Your task to perform on an android device: set the timer Image 0: 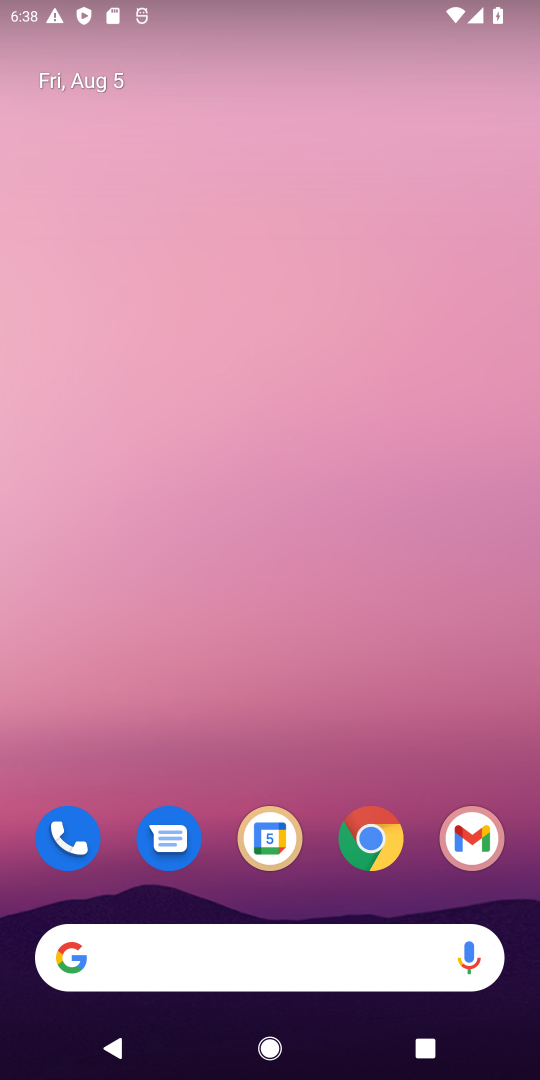
Step 0: press home button
Your task to perform on an android device: set the timer Image 1: 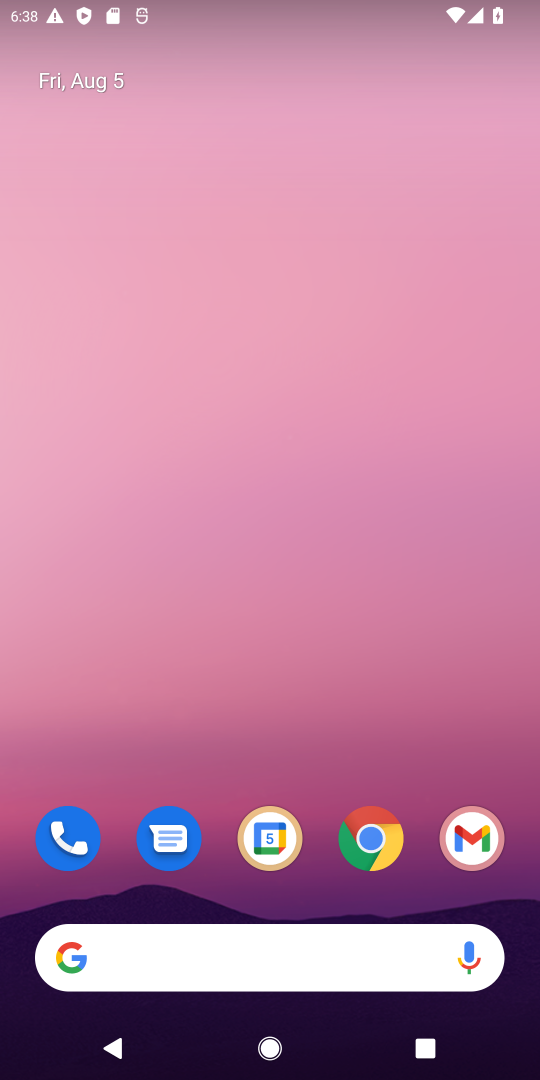
Step 1: drag from (387, 725) to (375, 206)
Your task to perform on an android device: set the timer Image 2: 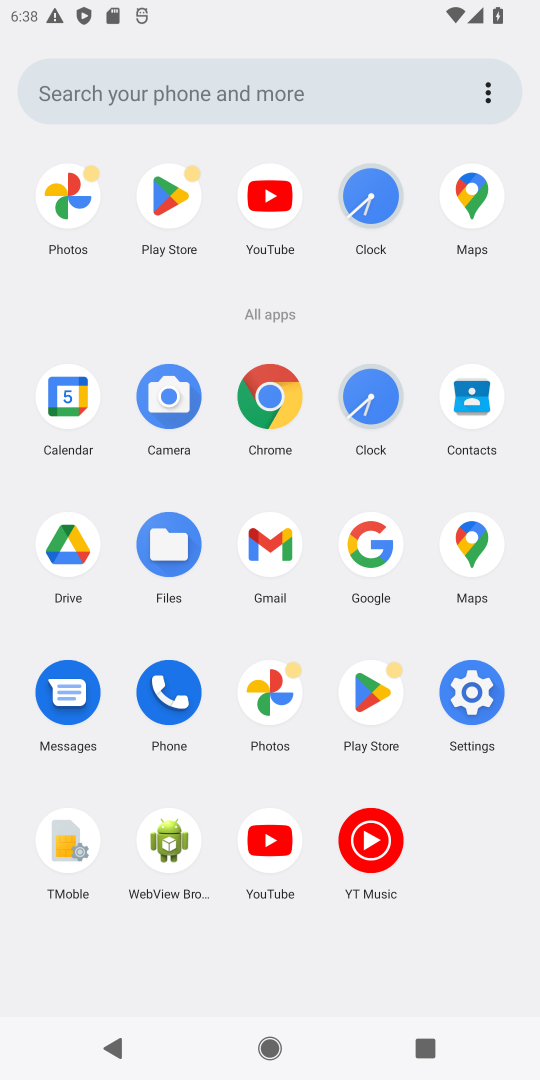
Step 2: click (369, 396)
Your task to perform on an android device: set the timer Image 3: 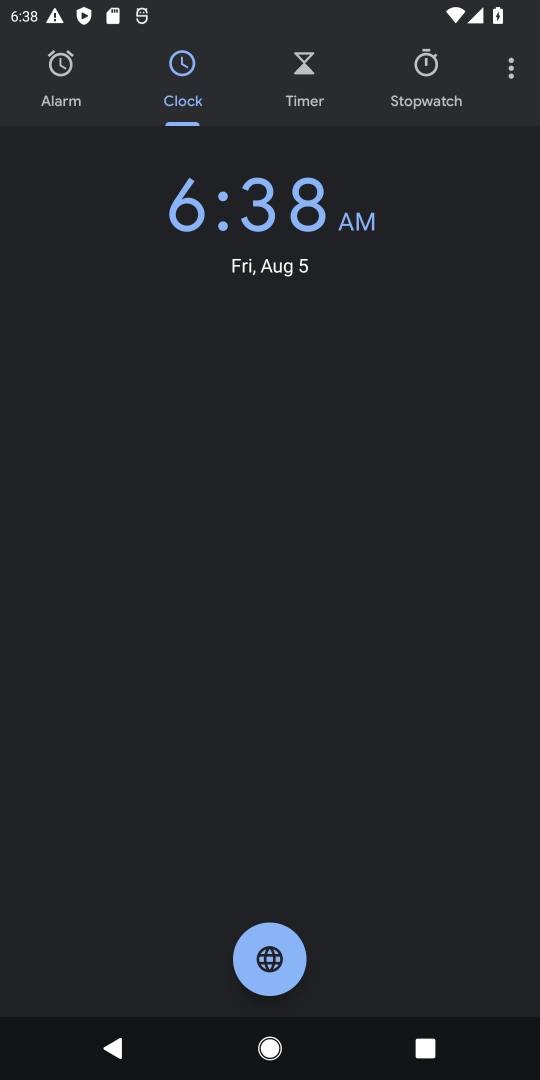
Step 3: click (293, 58)
Your task to perform on an android device: set the timer Image 4: 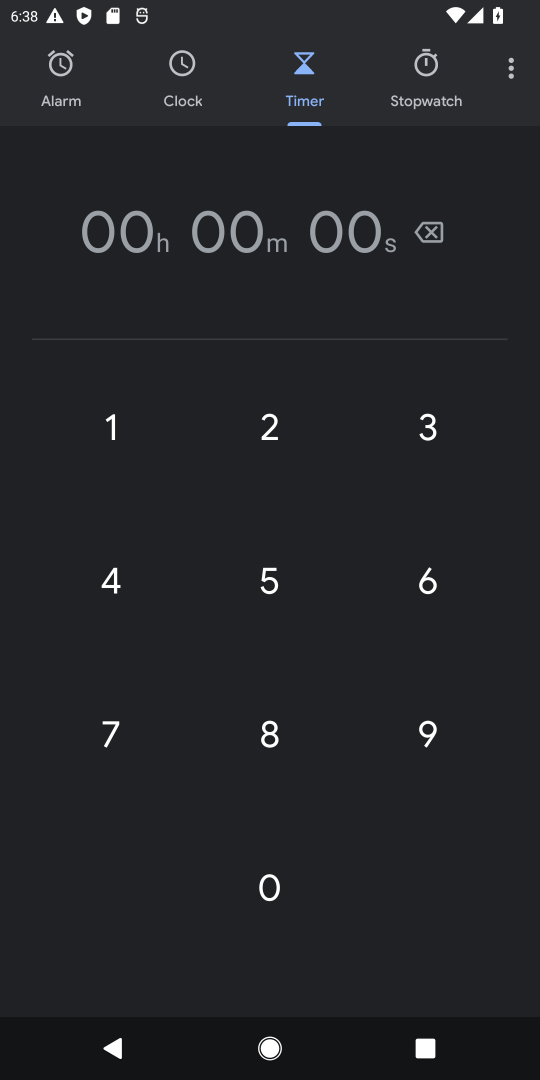
Step 4: click (250, 577)
Your task to perform on an android device: set the timer Image 5: 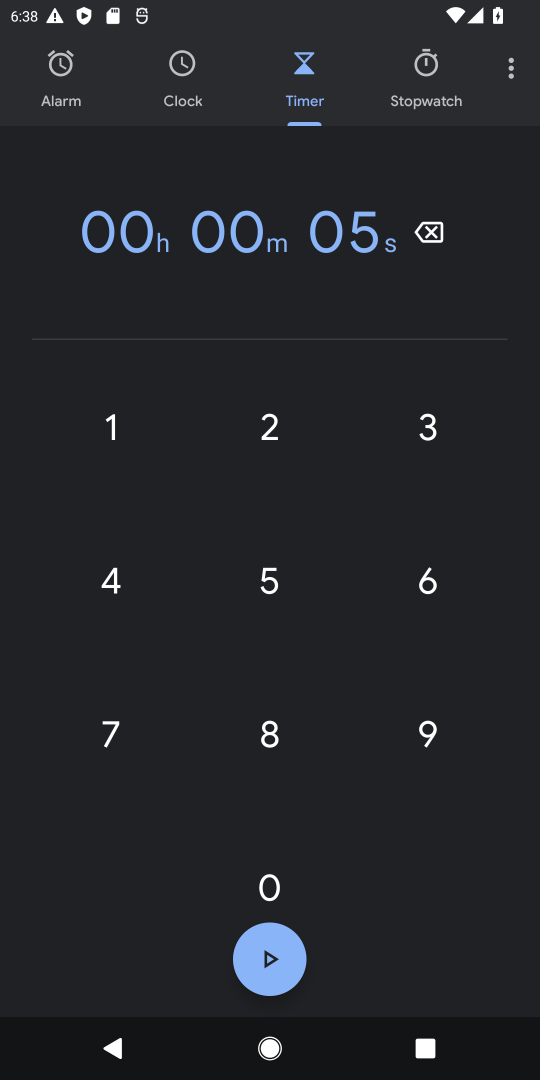
Step 5: click (252, 577)
Your task to perform on an android device: set the timer Image 6: 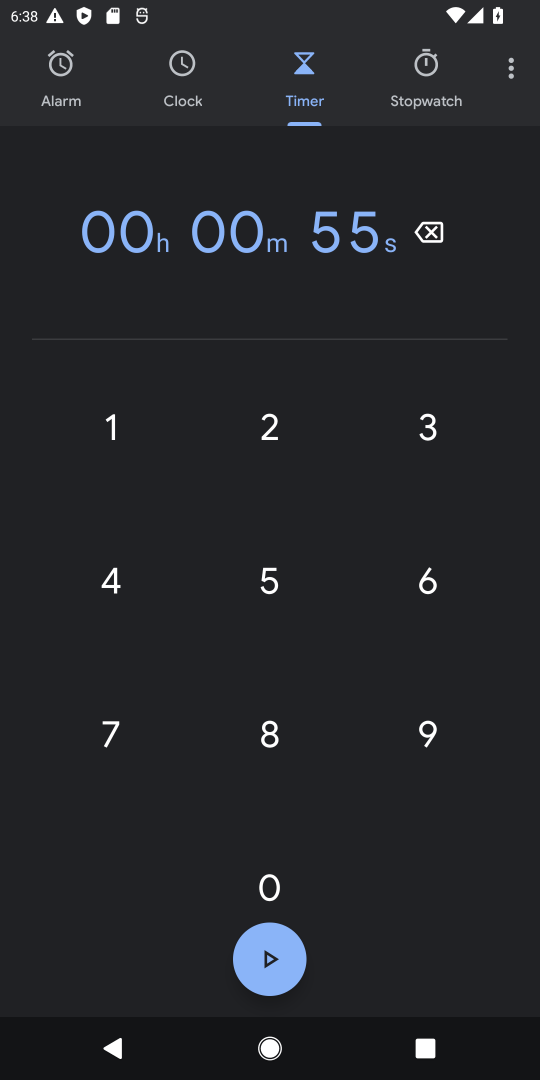
Step 6: click (255, 587)
Your task to perform on an android device: set the timer Image 7: 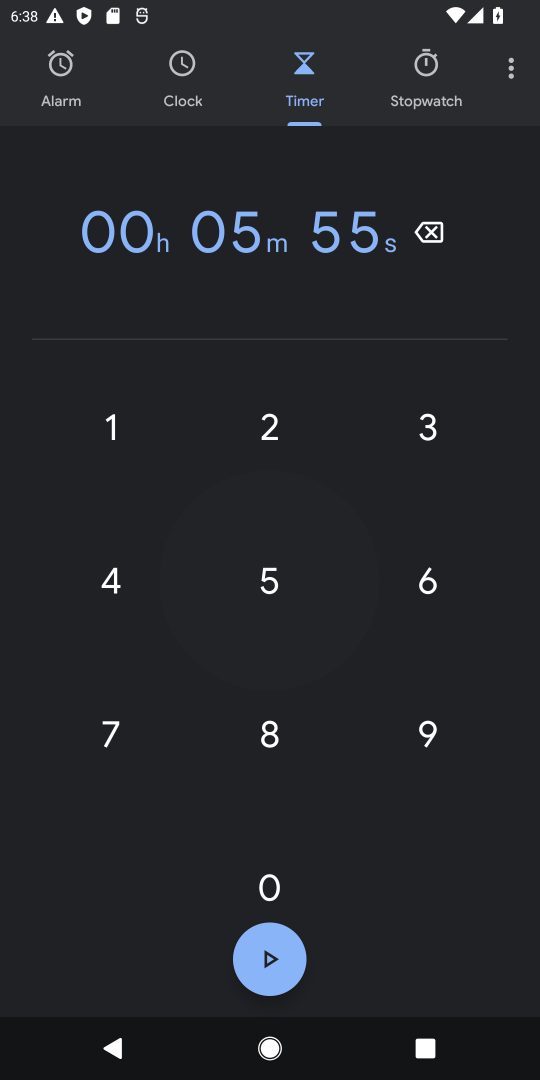
Step 7: click (275, 600)
Your task to perform on an android device: set the timer Image 8: 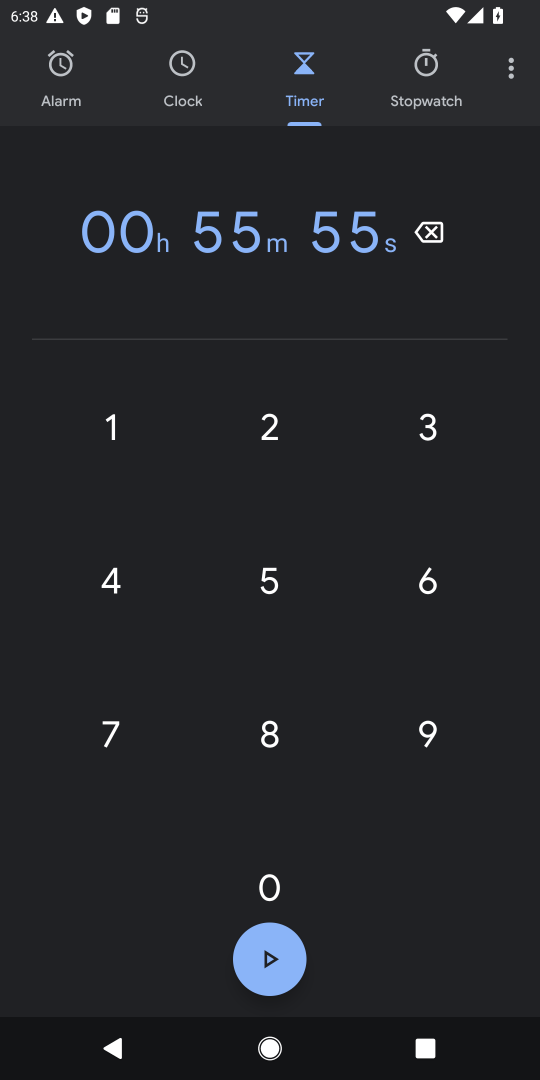
Step 8: click (112, 581)
Your task to perform on an android device: set the timer Image 9: 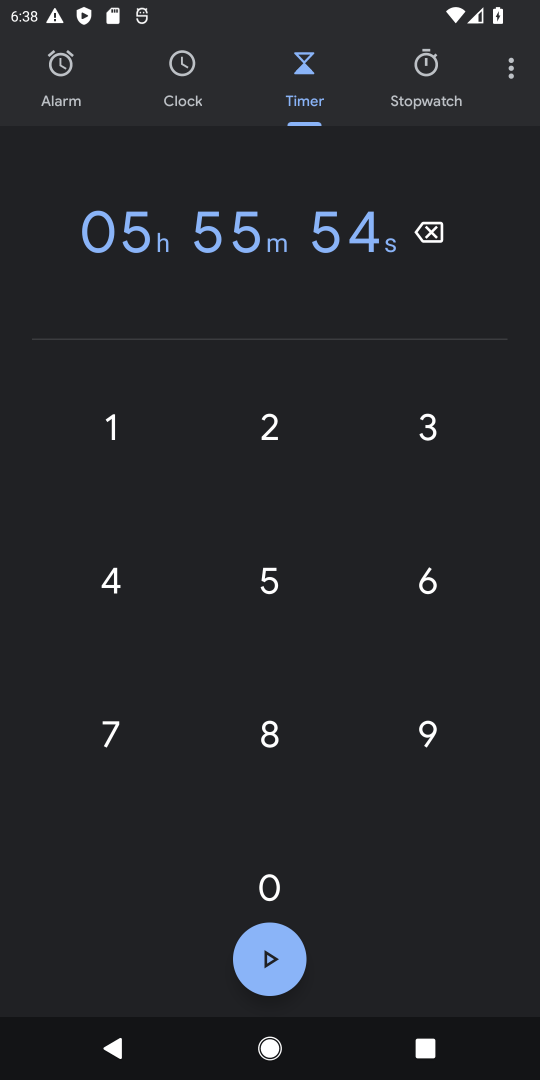
Step 9: click (259, 962)
Your task to perform on an android device: set the timer Image 10: 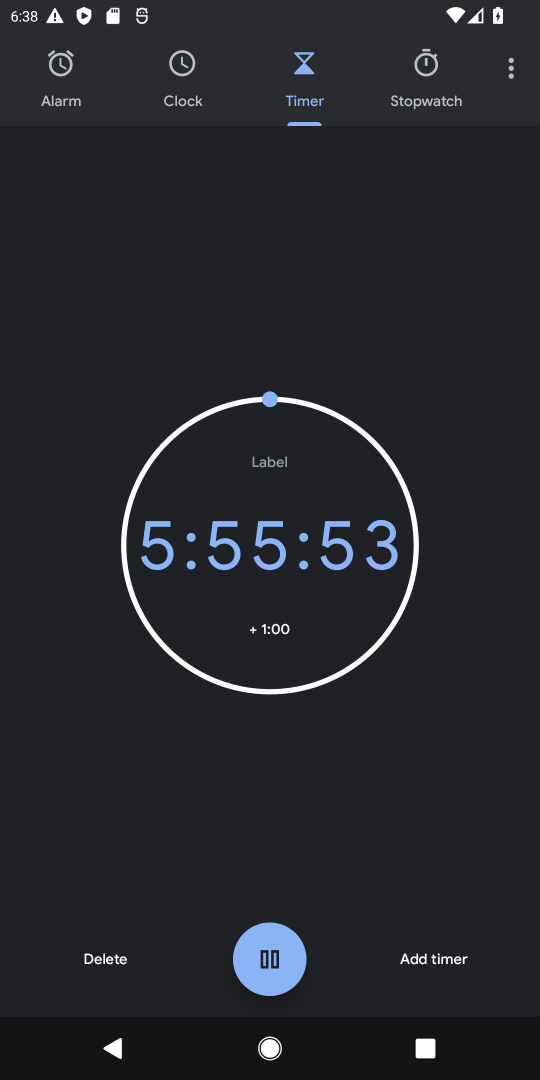
Step 10: click (261, 962)
Your task to perform on an android device: set the timer Image 11: 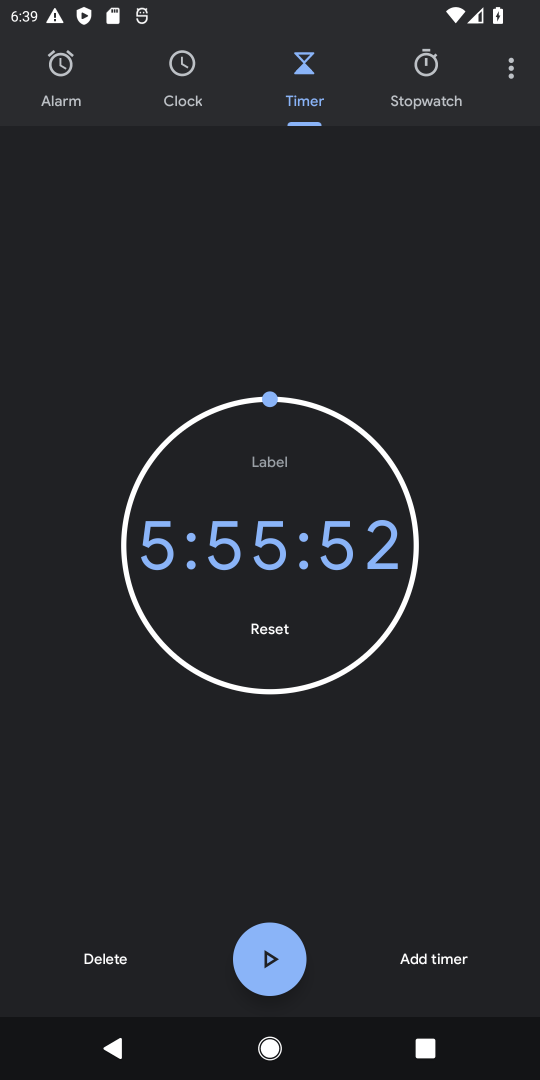
Step 11: task complete